Your task to perform on an android device: Open Wikipedia Image 0: 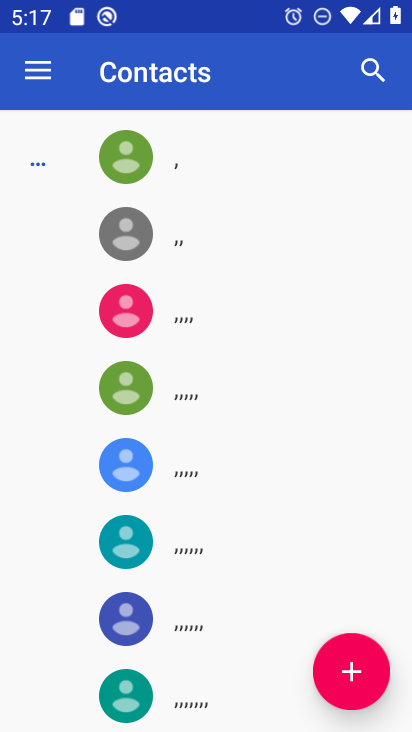
Step 0: press home button
Your task to perform on an android device: Open Wikipedia Image 1: 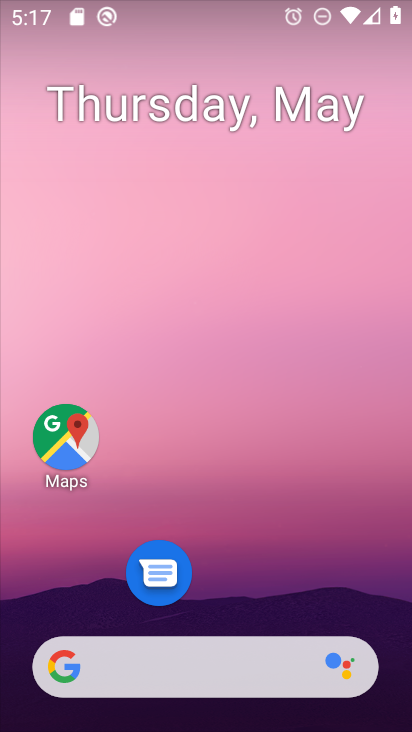
Step 1: drag from (261, 606) to (255, 147)
Your task to perform on an android device: Open Wikipedia Image 2: 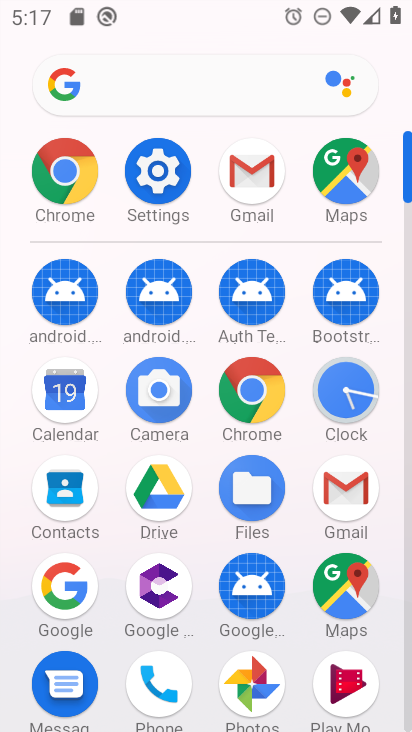
Step 2: click (63, 210)
Your task to perform on an android device: Open Wikipedia Image 3: 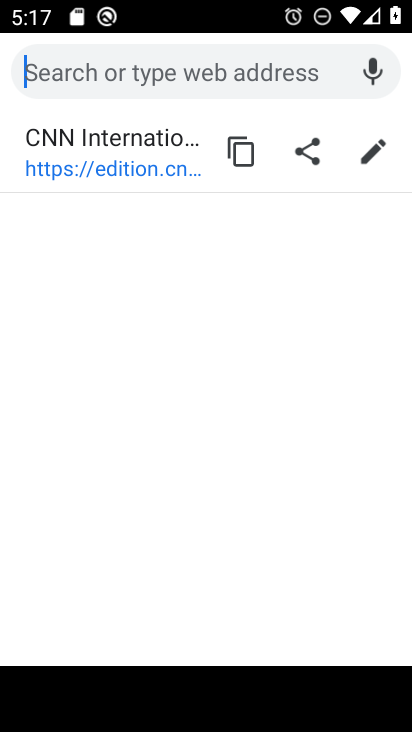
Step 3: click (148, 57)
Your task to perform on an android device: Open Wikipedia Image 4: 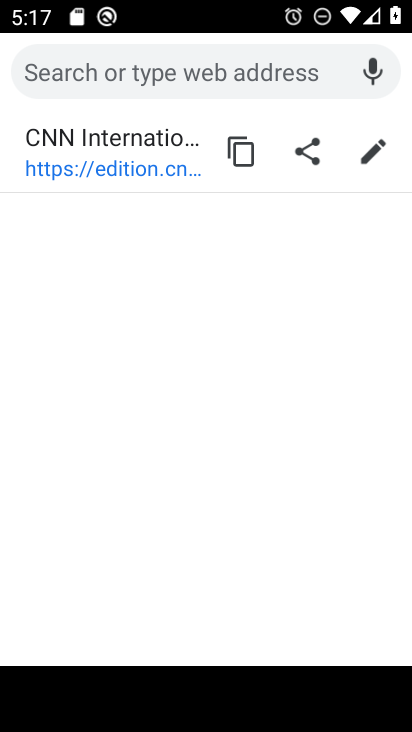
Step 4: type "www.wikipedia.com"
Your task to perform on an android device: Open Wikipedia Image 5: 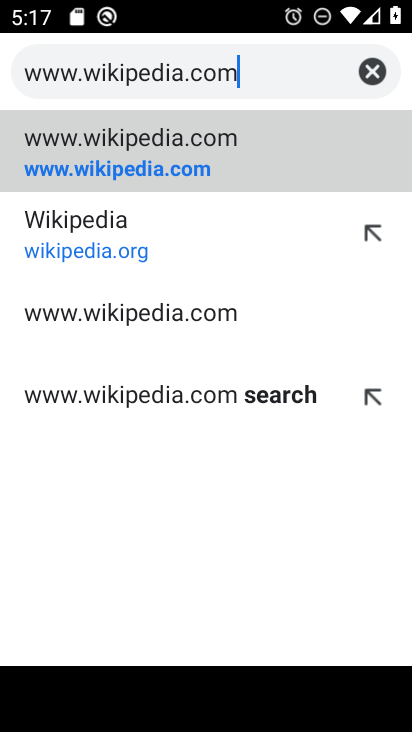
Step 5: click (84, 149)
Your task to perform on an android device: Open Wikipedia Image 6: 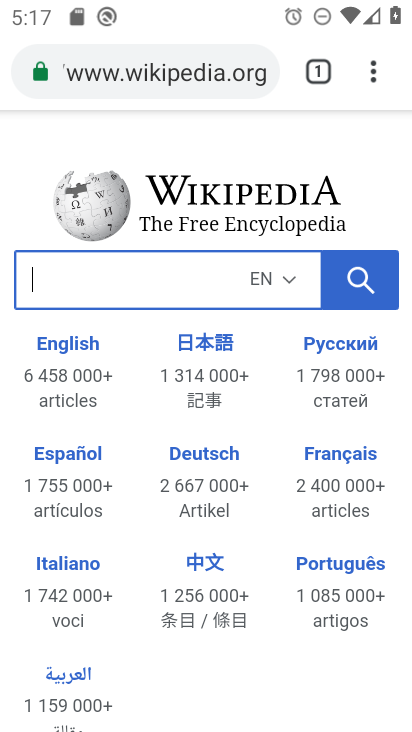
Step 6: task complete